Your task to perform on an android device: Open my contact list Image 0: 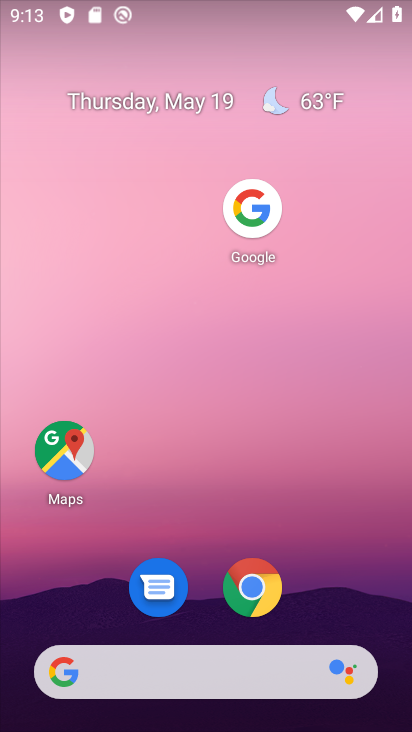
Step 0: drag from (199, 629) to (352, 20)
Your task to perform on an android device: Open my contact list Image 1: 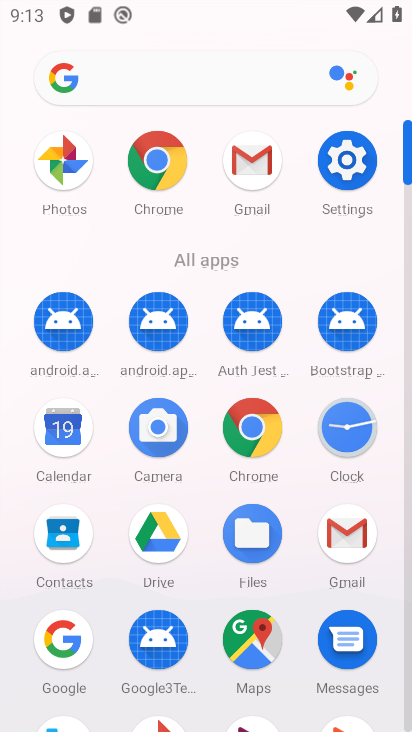
Step 1: drag from (206, 584) to (154, 61)
Your task to perform on an android device: Open my contact list Image 2: 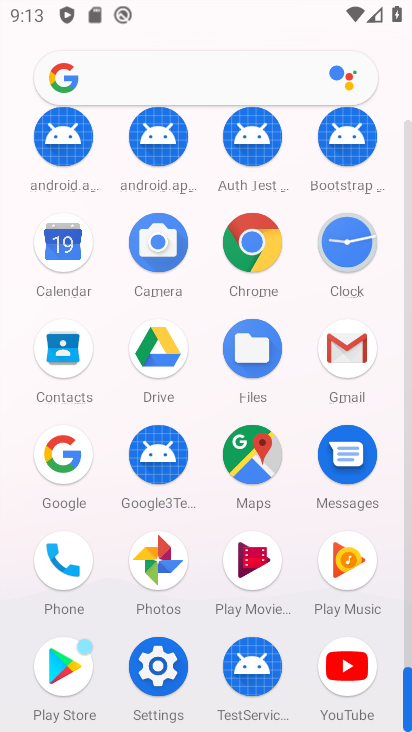
Step 2: click (34, 340)
Your task to perform on an android device: Open my contact list Image 3: 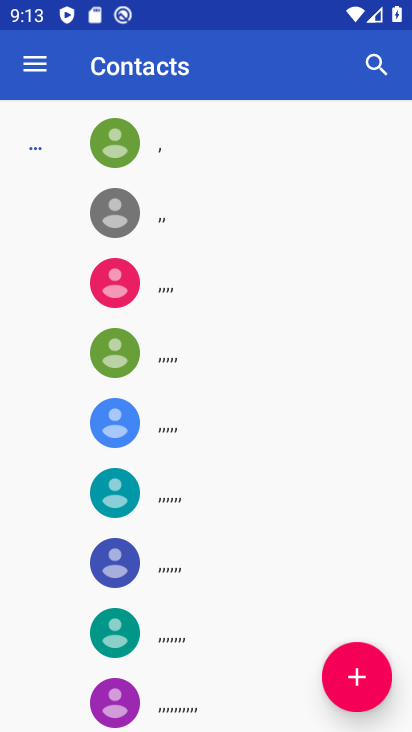
Step 3: task complete